Your task to perform on an android device: see creations saved in the google photos Image 0: 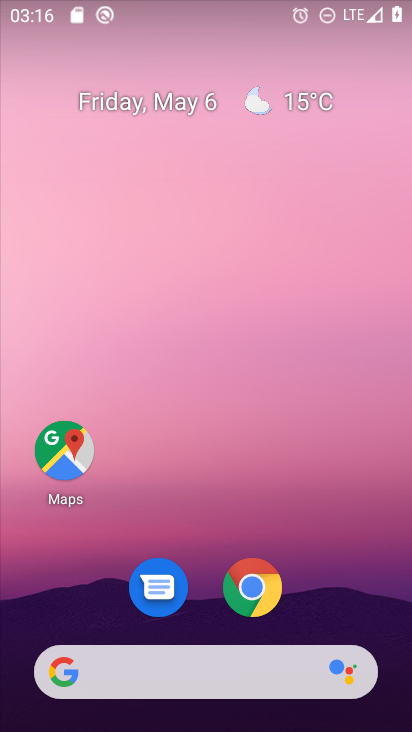
Step 0: drag from (289, 329) to (231, 25)
Your task to perform on an android device: see creations saved in the google photos Image 1: 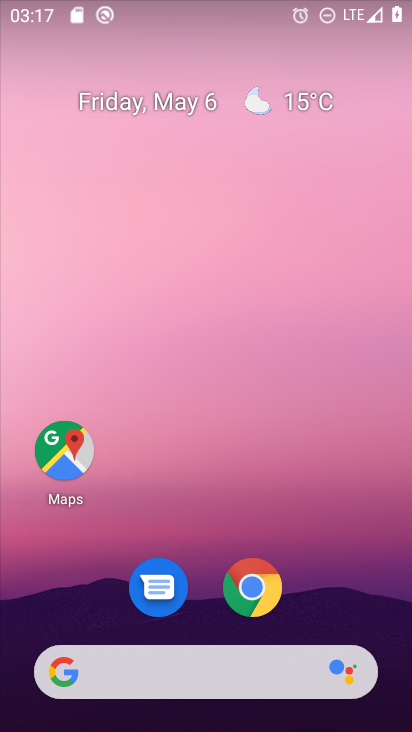
Step 1: drag from (345, 578) to (260, 39)
Your task to perform on an android device: see creations saved in the google photos Image 2: 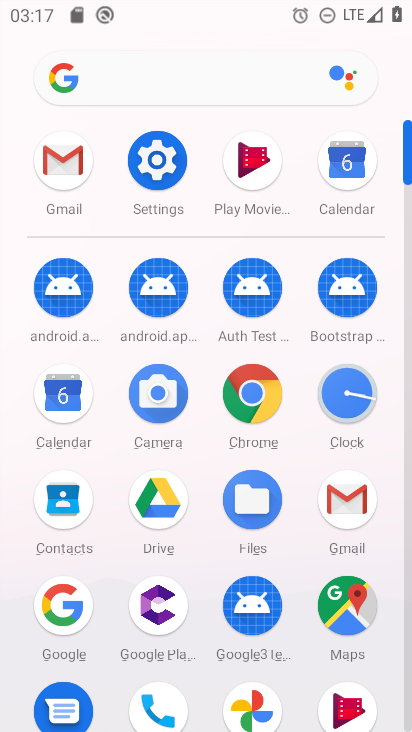
Step 2: click (261, 710)
Your task to perform on an android device: see creations saved in the google photos Image 3: 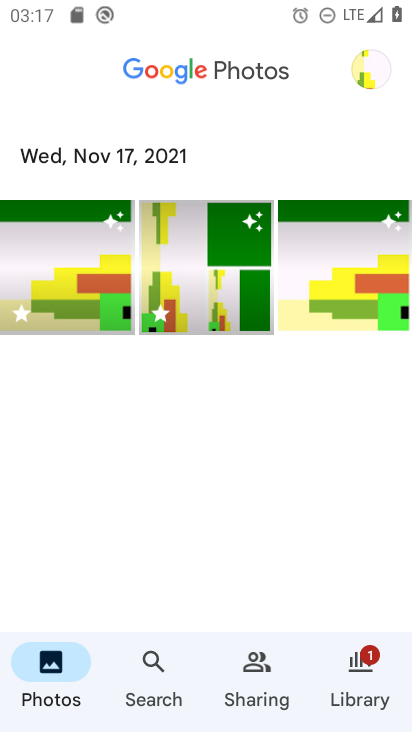
Step 3: click (151, 668)
Your task to perform on an android device: see creations saved in the google photos Image 4: 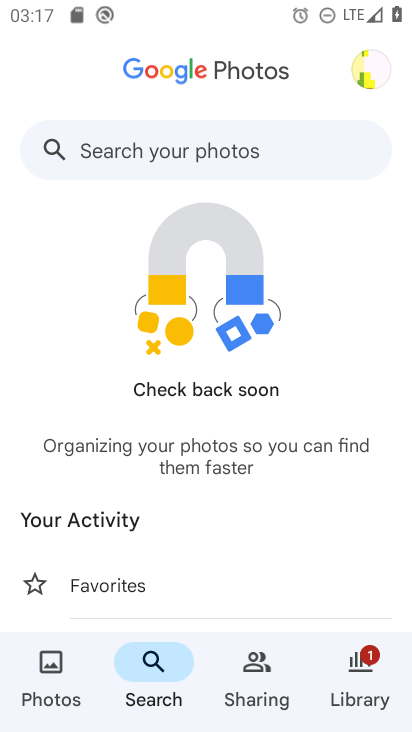
Step 4: click (137, 140)
Your task to perform on an android device: see creations saved in the google photos Image 5: 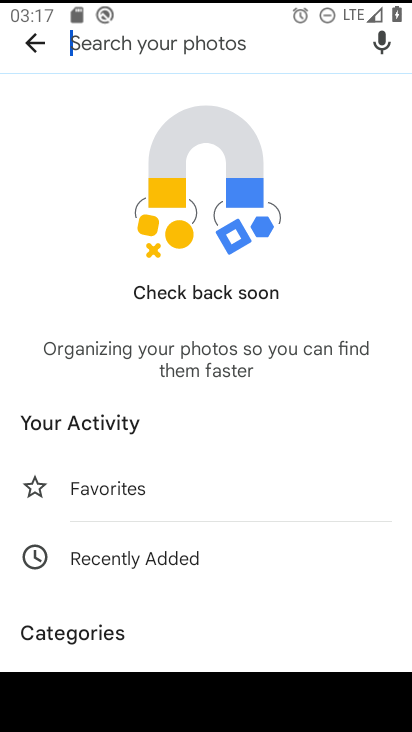
Step 5: type "creation"
Your task to perform on an android device: see creations saved in the google photos Image 6: 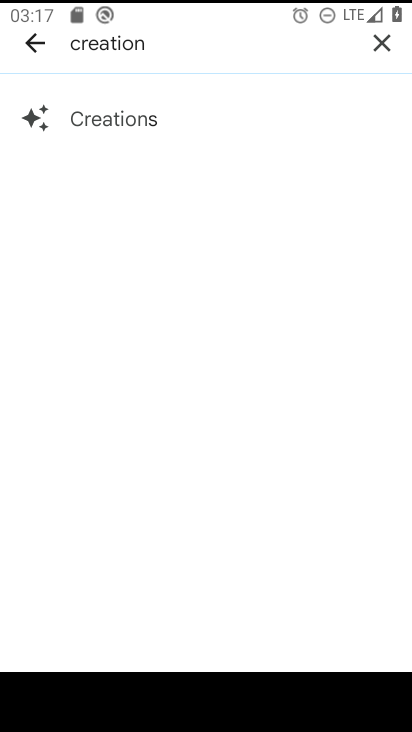
Step 6: click (130, 125)
Your task to perform on an android device: see creations saved in the google photos Image 7: 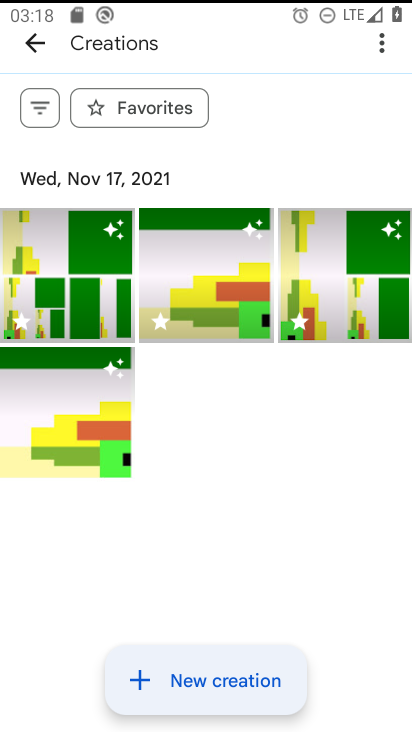
Step 7: task complete